Your task to perform on an android device: change the clock display to show seconds Image 0: 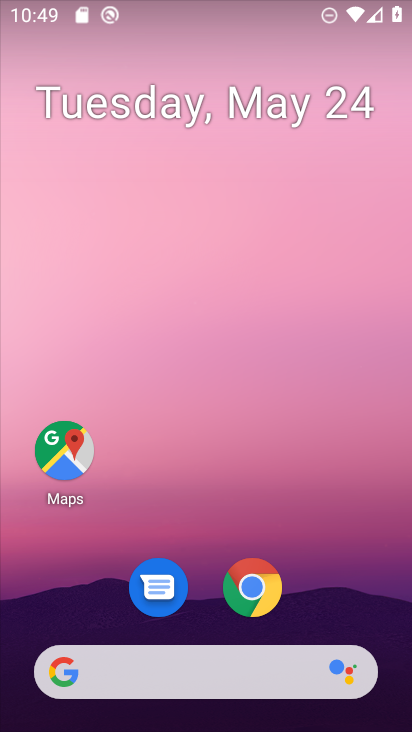
Step 0: press home button
Your task to perform on an android device: change the clock display to show seconds Image 1: 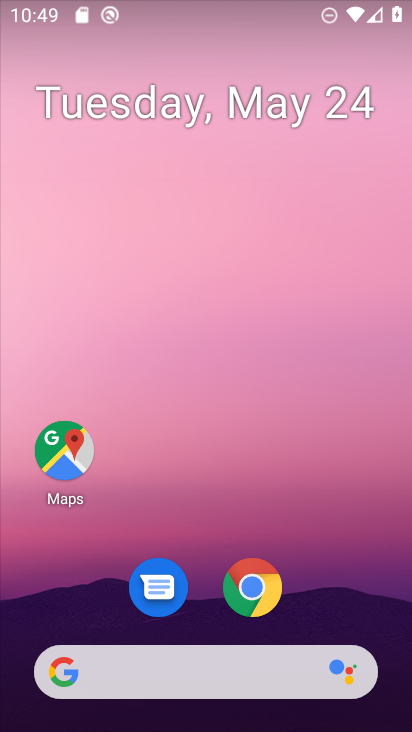
Step 1: drag from (347, 626) to (305, 103)
Your task to perform on an android device: change the clock display to show seconds Image 2: 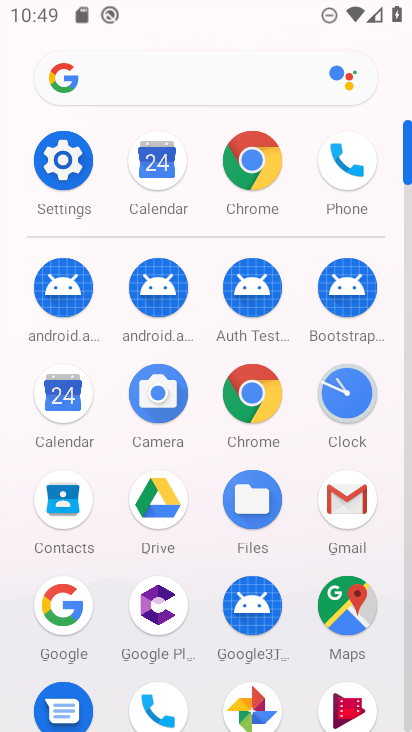
Step 2: click (352, 416)
Your task to perform on an android device: change the clock display to show seconds Image 3: 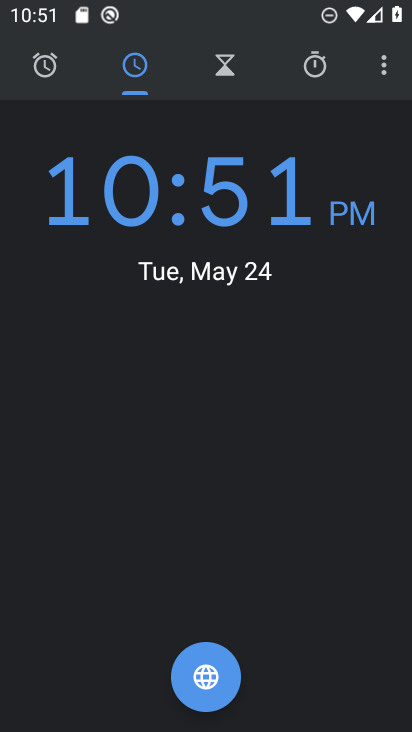
Step 3: click (391, 68)
Your task to perform on an android device: change the clock display to show seconds Image 4: 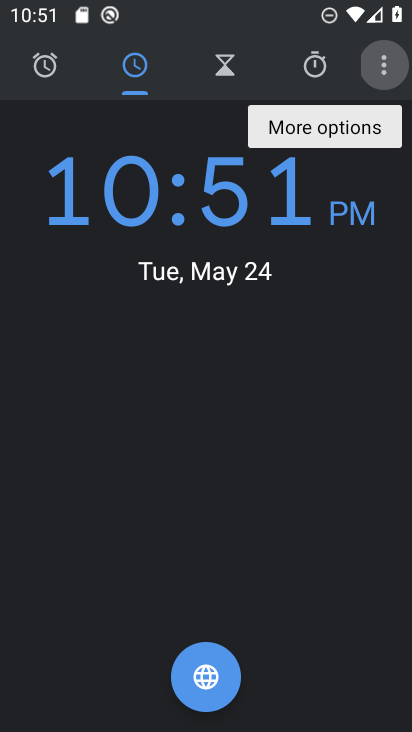
Step 4: click (383, 66)
Your task to perform on an android device: change the clock display to show seconds Image 5: 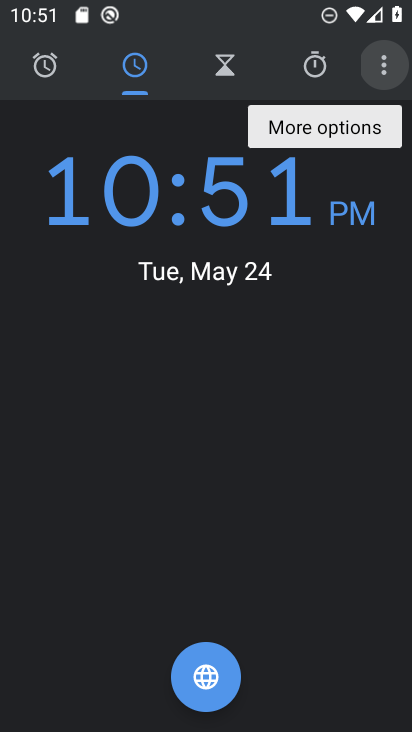
Step 5: click (383, 66)
Your task to perform on an android device: change the clock display to show seconds Image 6: 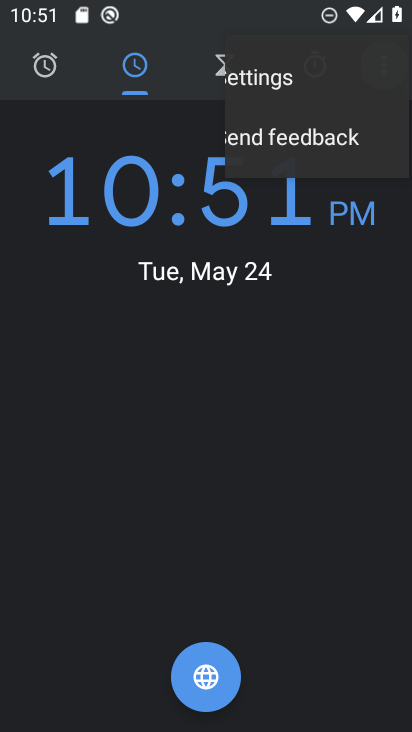
Step 6: click (383, 66)
Your task to perform on an android device: change the clock display to show seconds Image 7: 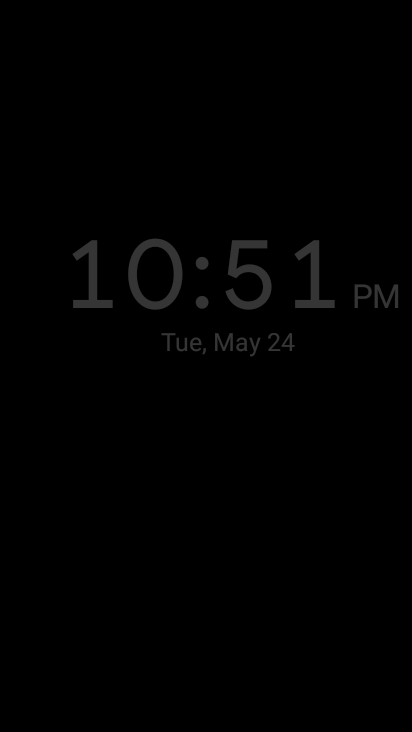
Step 7: click (383, 66)
Your task to perform on an android device: change the clock display to show seconds Image 8: 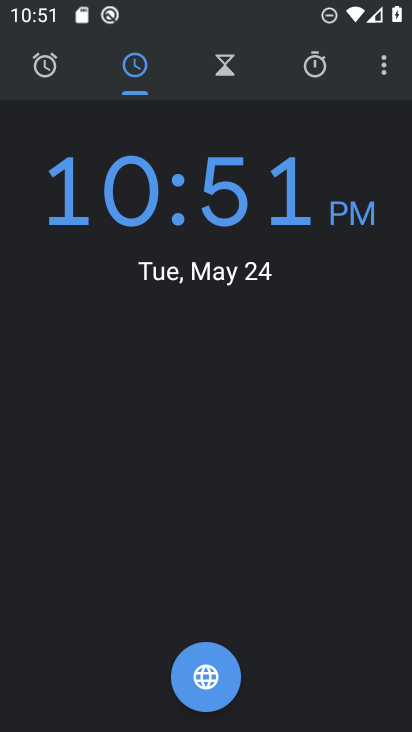
Step 8: click (379, 61)
Your task to perform on an android device: change the clock display to show seconds Image 9: 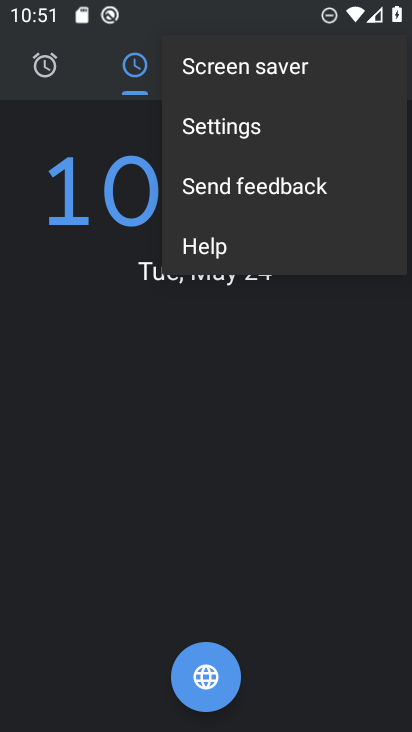
Step 9: click (237, 137)
Your task to perform on an android device: change the clock display to show seconds Image 10: 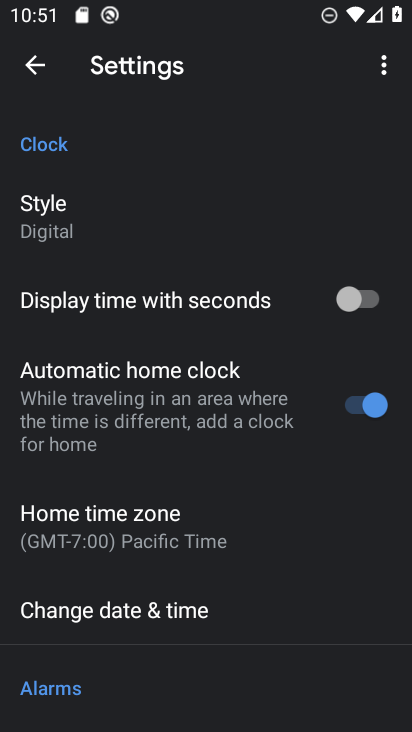
Step 10: click (110, 303)
Your task to perform on an android device: change the clock display to show seconds Image 11: 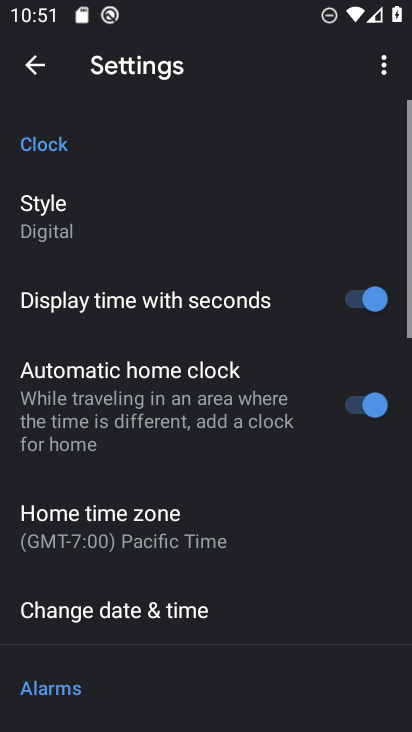
Step 11: task complete